Your task to perform on an android device: Go to privacy settings Image 0: 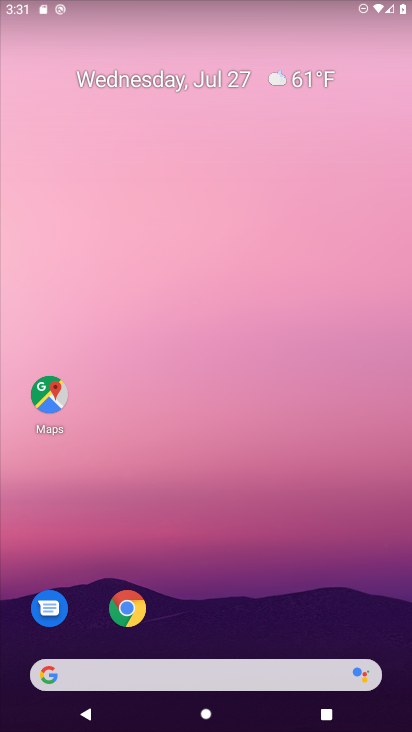
Step 0: drag from (226, 730) to (192, 64)
Your task to perform on an android device: Go to privacy settings Image 1: 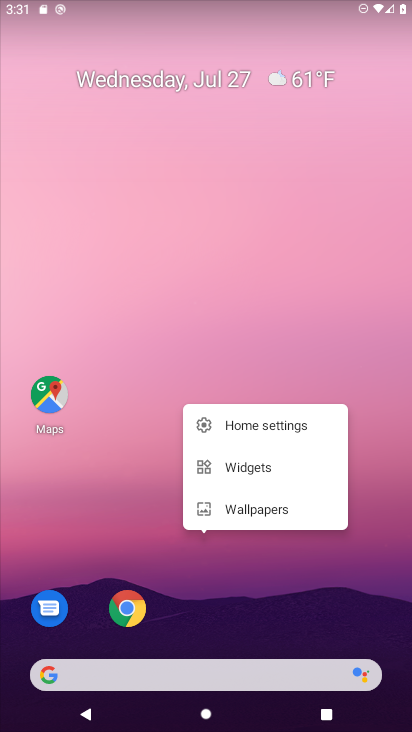
Step 1: click (184, 574)
Your task to perform on an android device: Go to privacy settings Image 2: 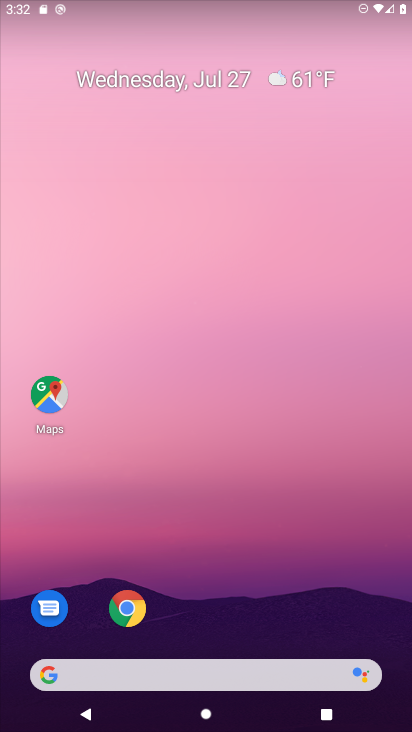
Step 2: drag from (235, 676) to (232, 88)
Your task to perform on an android device: Go to privacy settings Image 3: 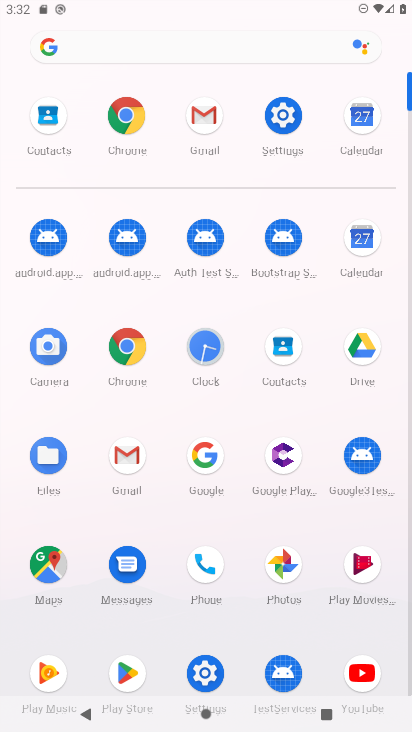
Step 3: click (283, 117)
Your task to perform on an android device: Go to privacy settings Image 4: 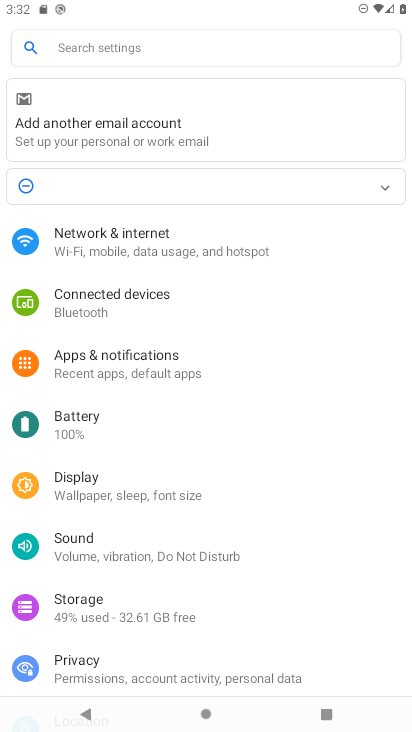
Step 4: click (75, 656)
Your task to perform on an android device: Go to privacy settings Image 5: 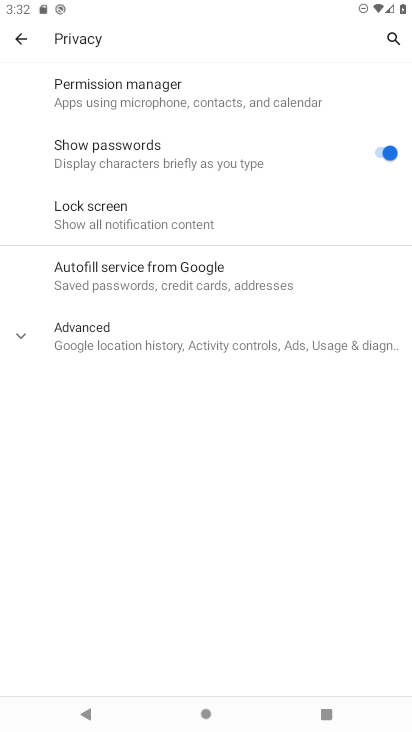
Step 5: task complete